Your task to perform on an android device: allow cookies in the chrome app Image 0: 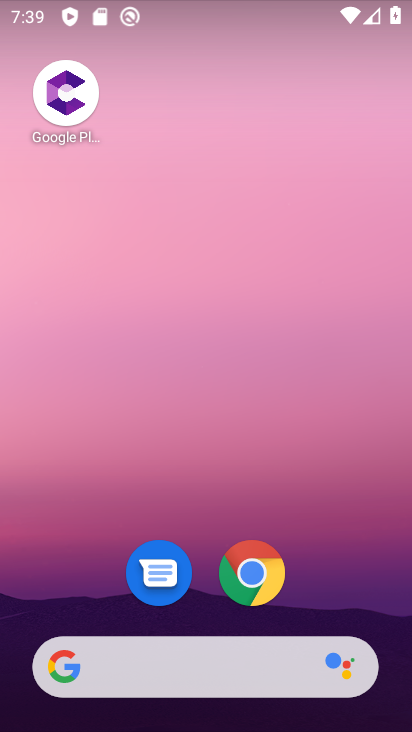
Step 0: click (259, 578)
Your task to perform on an android device: allow cookies in the chrome app Image 1: 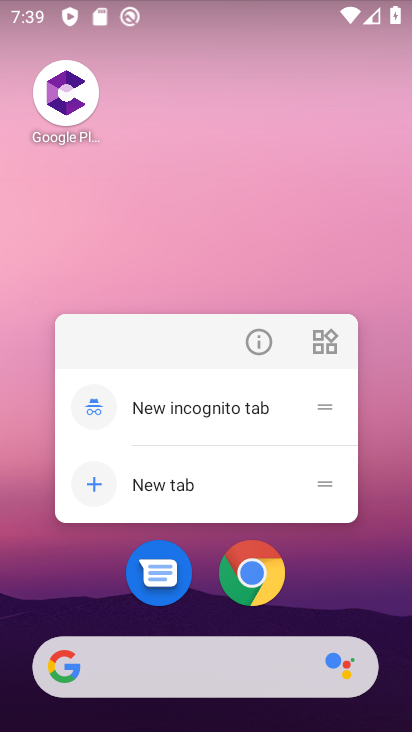
Step 1: click (262, 341)
Your task to perform on an android device: allow cookies in the chrome app Image 2: 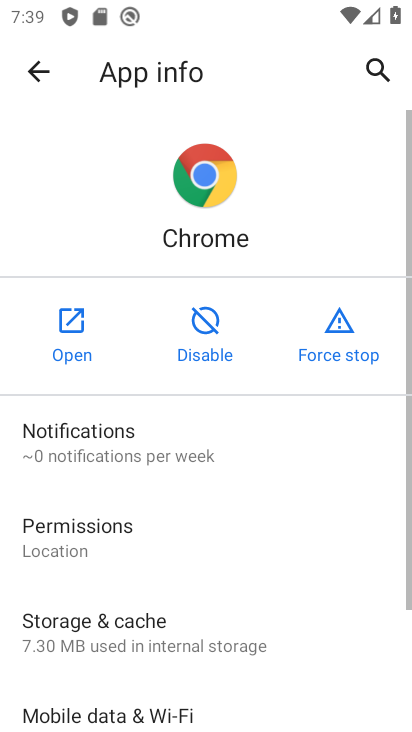
Step 2: click (76, 322)
Your task to perform on an android device: allow cookies in the chrome app Image 3: 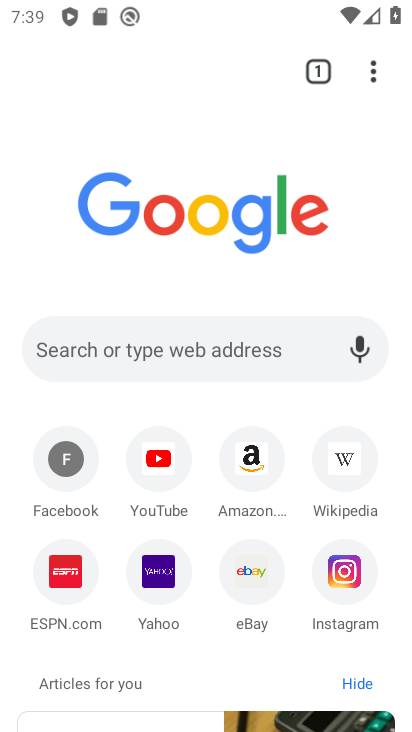
Step 3: click (363, 70)
Your task to perform on an android device: allow cookies in the chrome app Image 4: 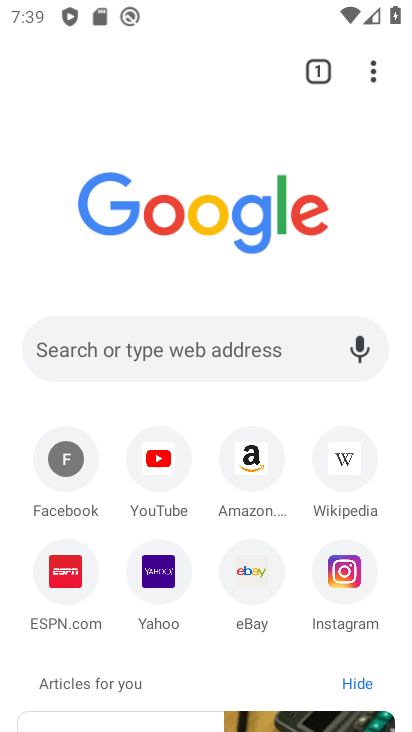
Step 4: click (375, 70)
Your task to perform on an android device: allow cookies in the chrome app Image 5: 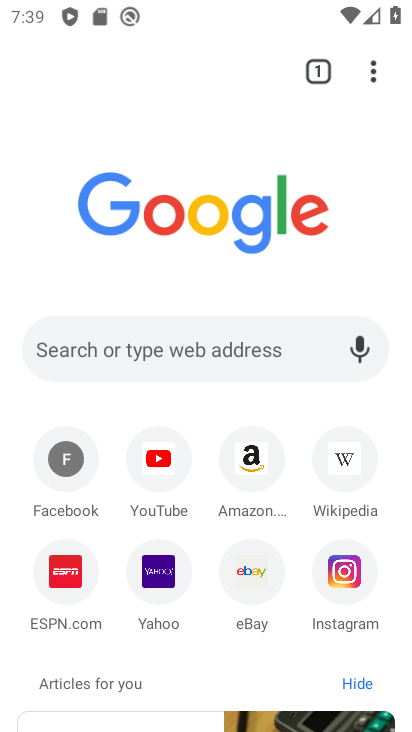
Step 5: click (375, 70)
Your task to perform on an android device: allow cookies in the chrome app Image 6: 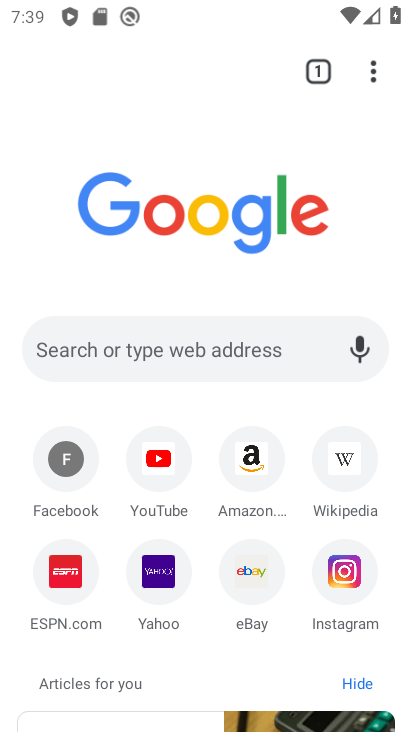
Step 6: click (375, 70)
Your task to perform on an android device: allow cookies in the chrome app Image 7: 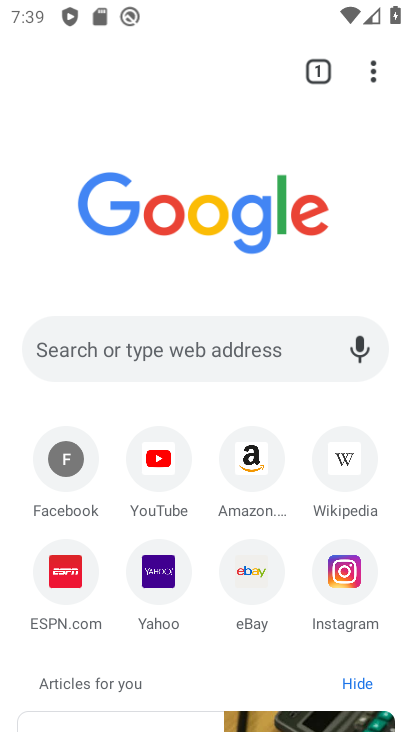
Step 7: click (375, 70)
Your task to perform on an android device: allow cookies in the chrome app Image 8: 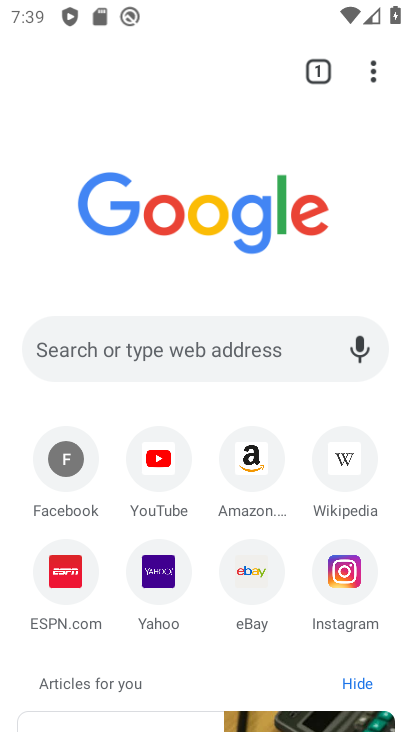
Step 8: click (375, 70)
Your task to perform on an android device: allow cookies in the chrome app Image 9: 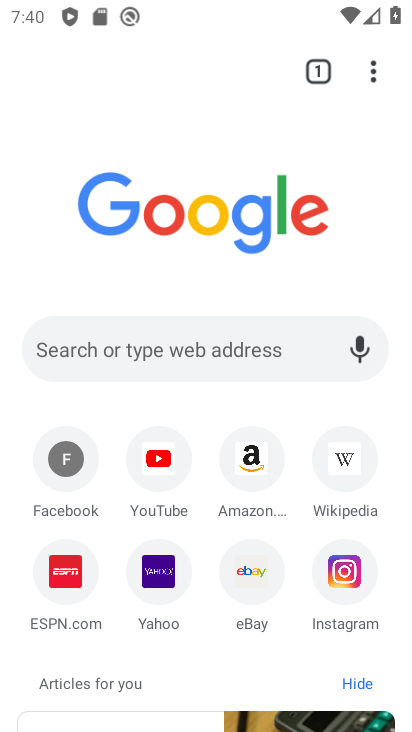
Step 9: click (375, 70)
Your task to perform on an android device: allow cookies in the chrome app Image 10: 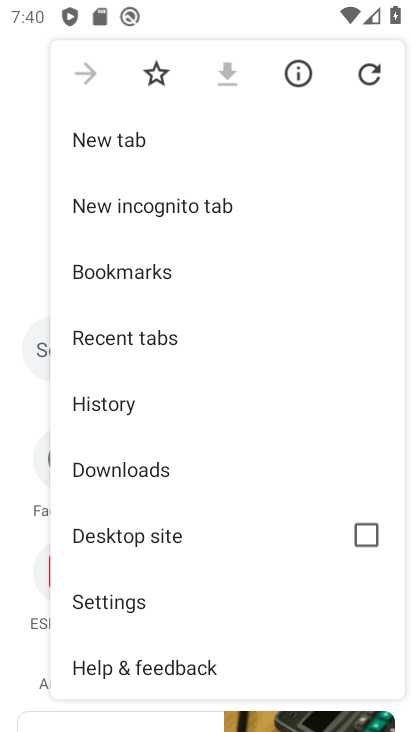
Step 10: click (156, 607)
Your task to perform on an android device: allow cookies in the chrome app Image 11: 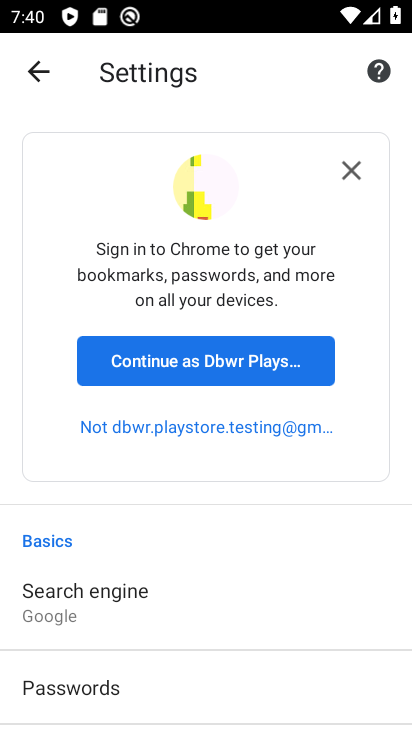
Step 11: click (352, 175)
Your task to perform on an android device: allow cookies in the chrome app Image 12: 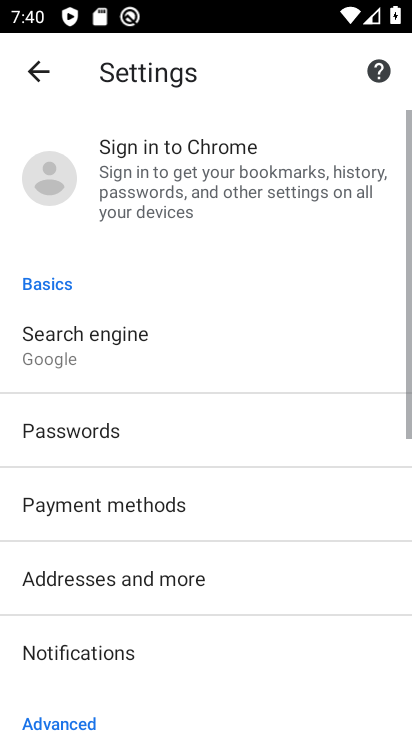
Step 12: drag from (117, 695) to (243, 254)
Your task to perform on an android device: allow cookies in the chrome app Image 13: 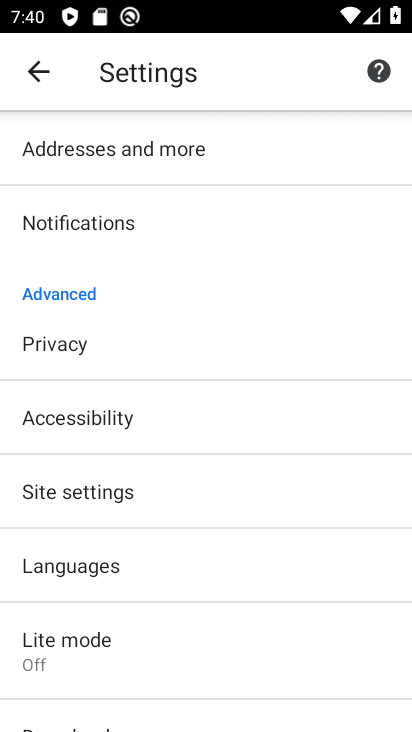
Step 13: click (64, 493)
Your task to perform on an android device: allow cookies in the chrome app Image 14: 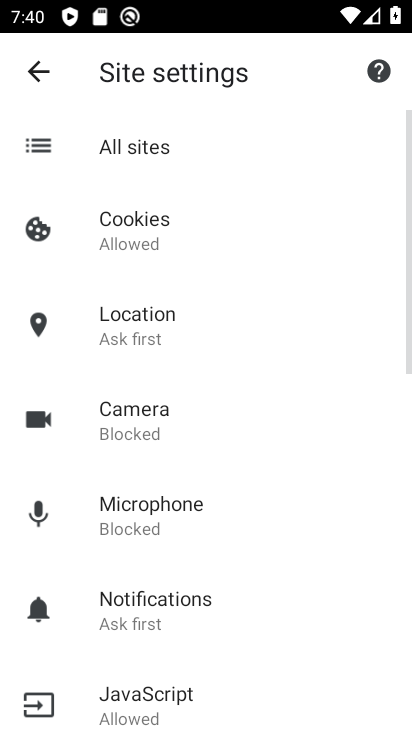
Step 14: click (150, 217)
Your task to perform on an android device: allow cookies in the chrome app Image 15: 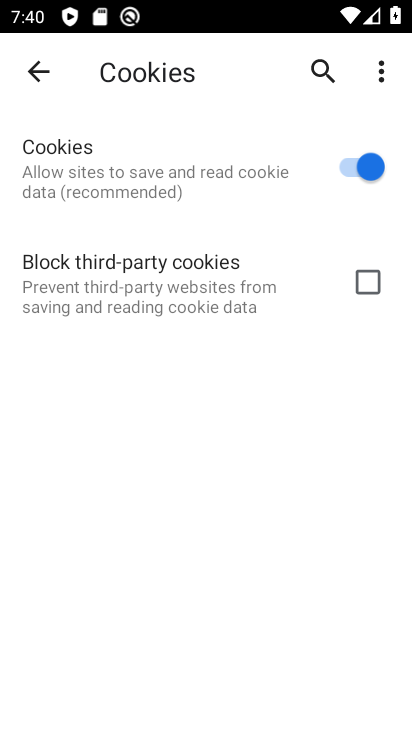
Step 15: task complete